Your task to perform on an android device: Play the last video I watched on Youtube Image 0: 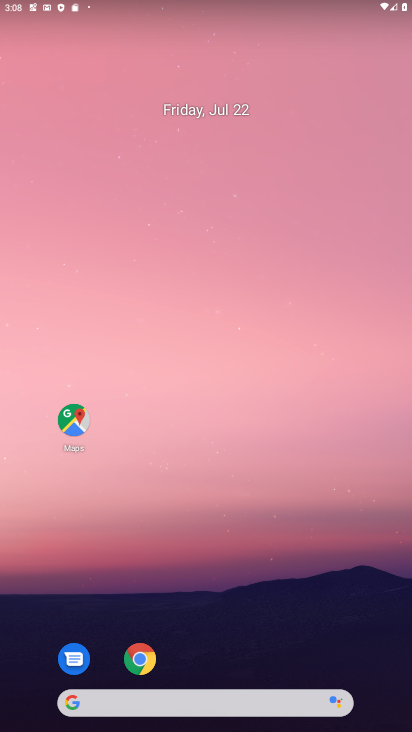
Step 0: drag from (233, 660) to (213, 19)
Your task to perform on an android device: Play the last video I watched on Youtube Image 1: 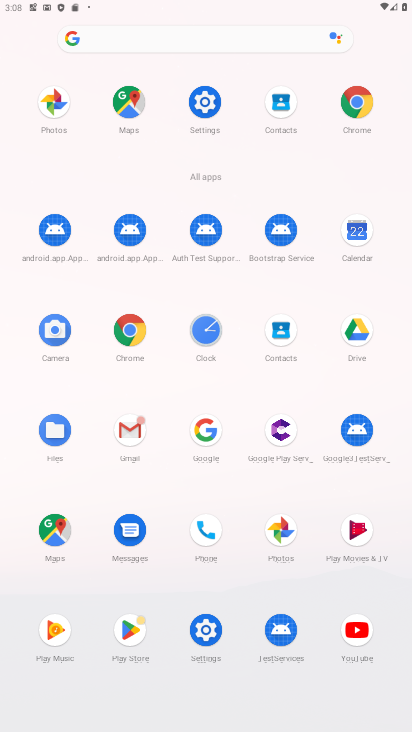
Step 1: click (351, 628)
Your task to perform on an android device: Play the last video I watched on Youtube Image 2: 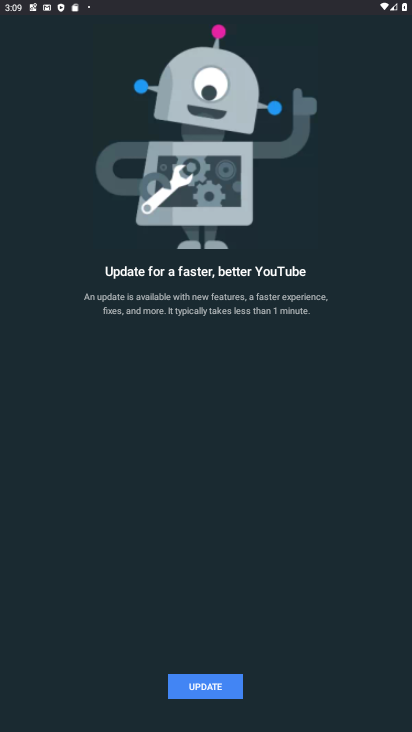
Step 2: click (195, 698)
Your task to perform on an android device: Play the last video I watched on Youtube Image 3: 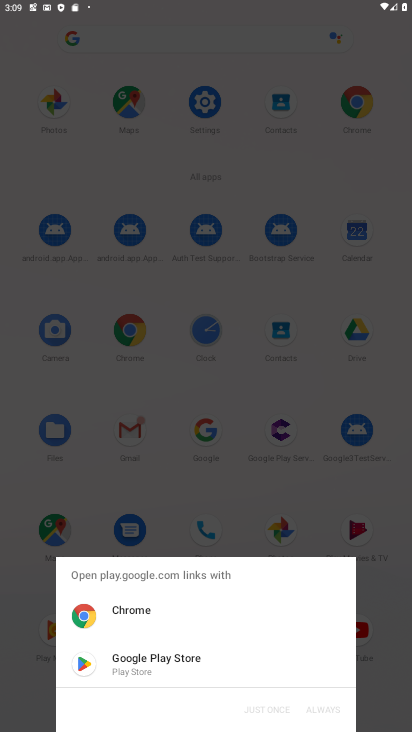
Step 3: click (134, 676)
Your task to perform on an android device: Play the last video I watched on Youtube Image 4: 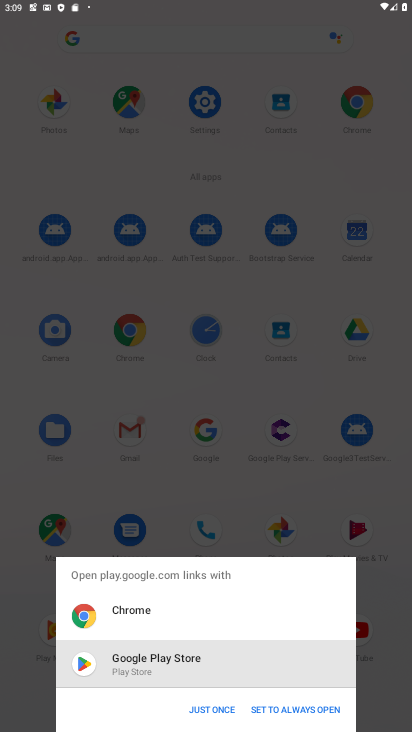
Step 4: click (209, 715)
Your task to perform on an android device: Play the last video I watched on Youtube Image 5: 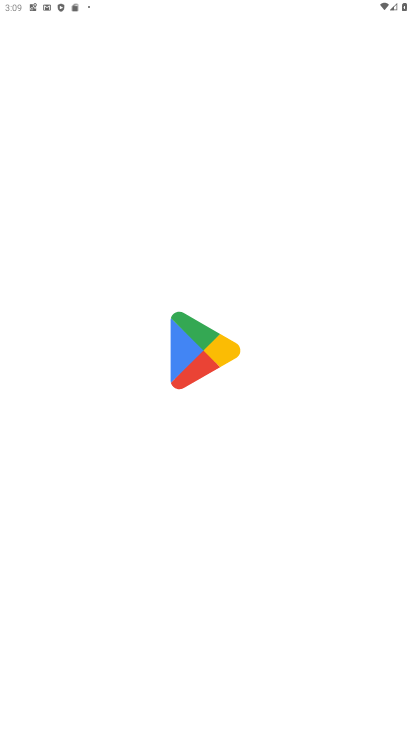
Step 5: click (209, 712)
Your task to perform on an android device: Play the last video I watched on Youtube Image 6: 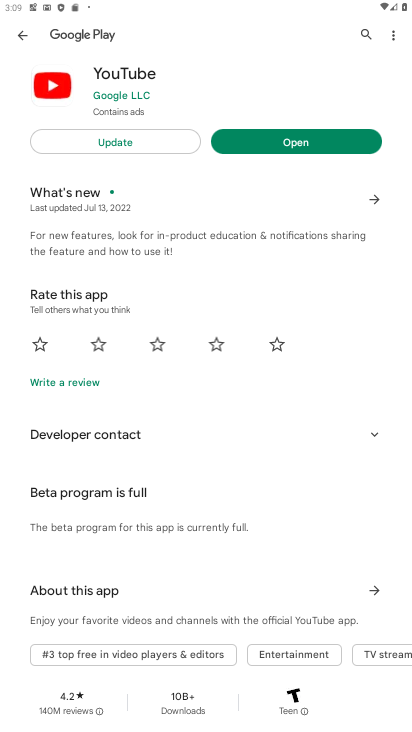
Step 6: click (115, 139)
Your task to perform on an android device: Play the last video I watched on Youtube Image 7: 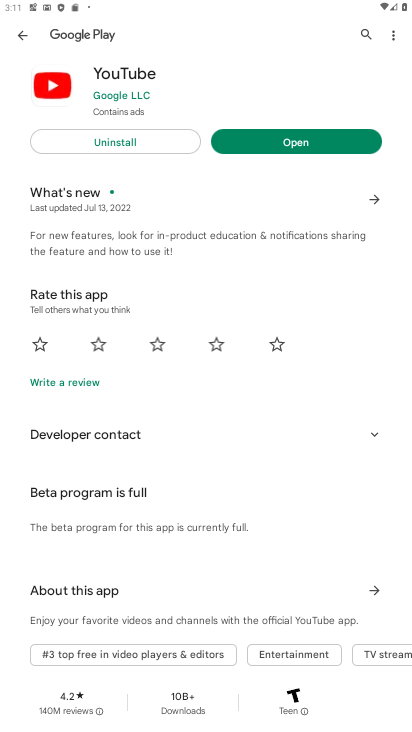
Step 7: click (309, 137)
Your task to perform on an android device: Play the last video I watched on Youtube Image 8: 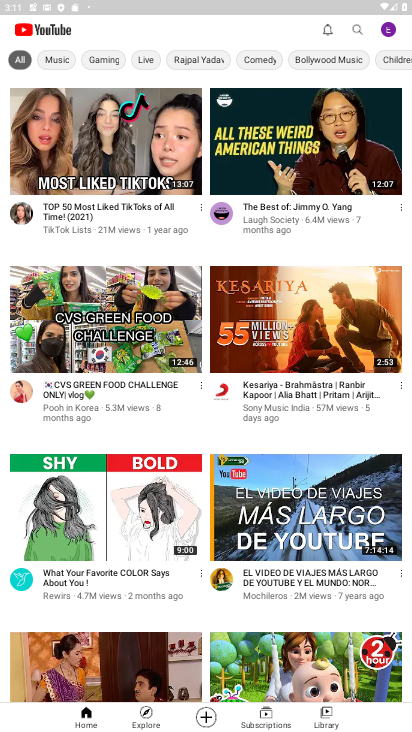
Step 8: click (330, 719)
Your task to perform on an android device: Play the last video I watched on Youtube Image 9: 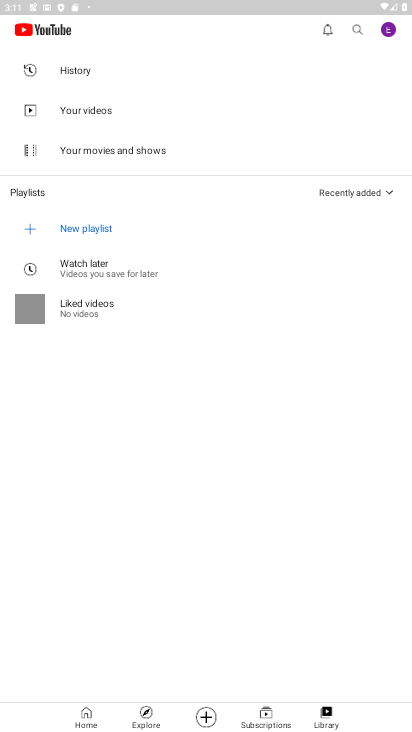
Step 9: click (145, 73)
Your task to perform on an android device: Play the last video I watched on Youtube Image 10: 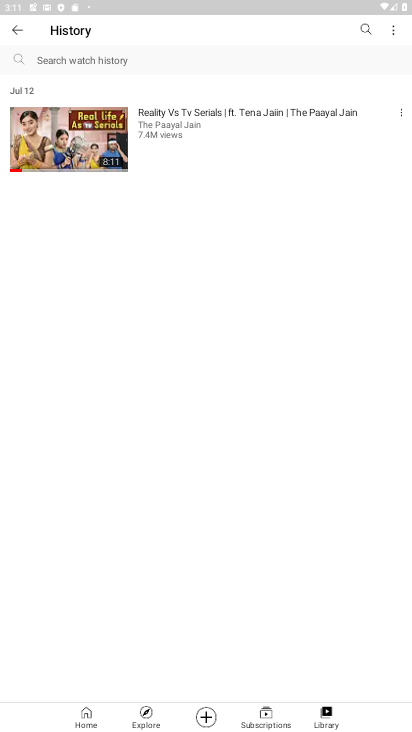
Step 10: click (36, 127)
Your task to perform on an android device: Play the last video I watched on Youtube Image 11: 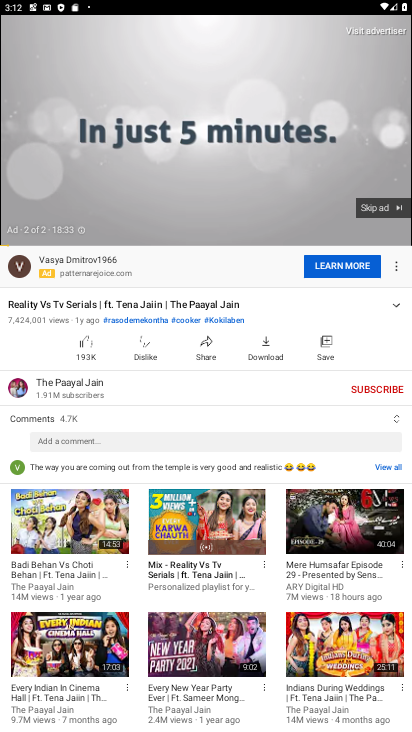
Step 11: click (359, 214)
Your task to perform on an android device: Play the last video I watched on Youtube Image 12: 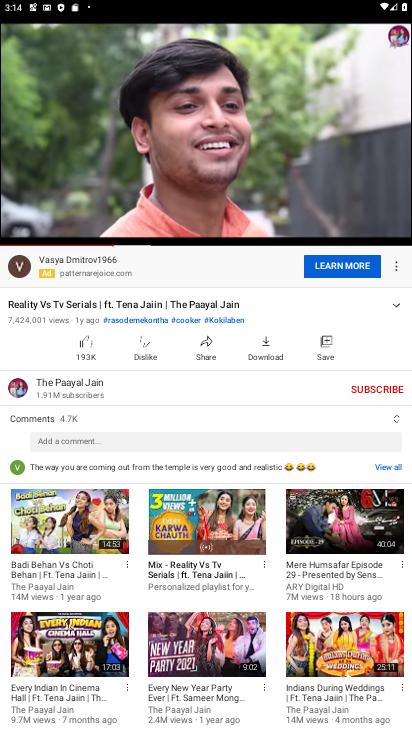
Step 12: task complete